Your task to perform on an android device: View the shopping cart on amazon. Image 0: 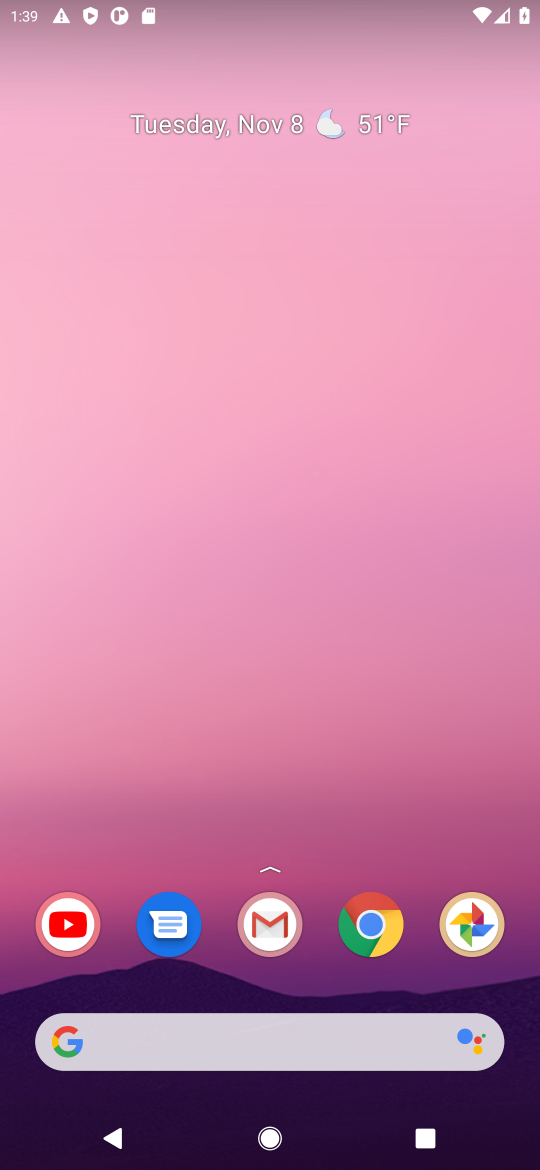
Step 0: click (388, 916)
Your task to perform on an android device: View the shopping cart on amazon. Image 1: 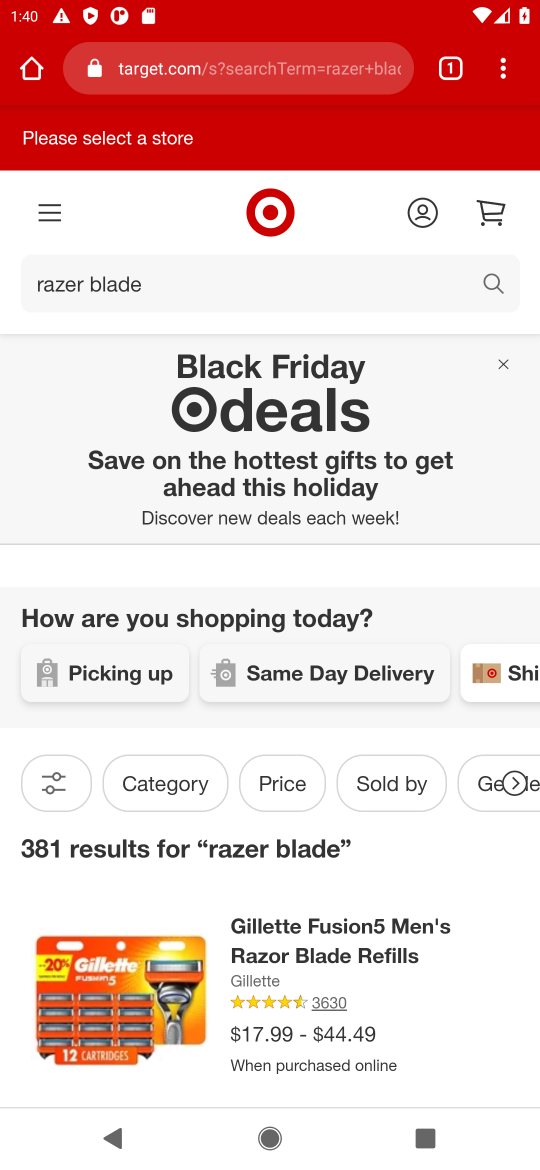
Step 1: click (186, 75)
Your task to perform on an android device: View the shopping cart on amazon. Image 2: 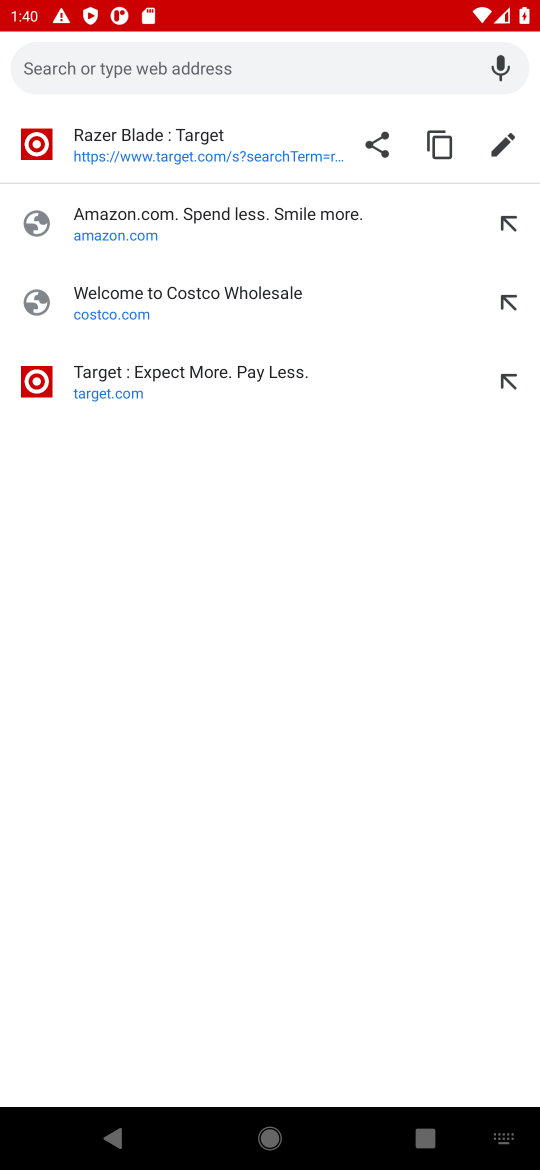
Step 2: type "amazion"
Your task to perform on an android device: View the shopping cart on amazon. Image 3: 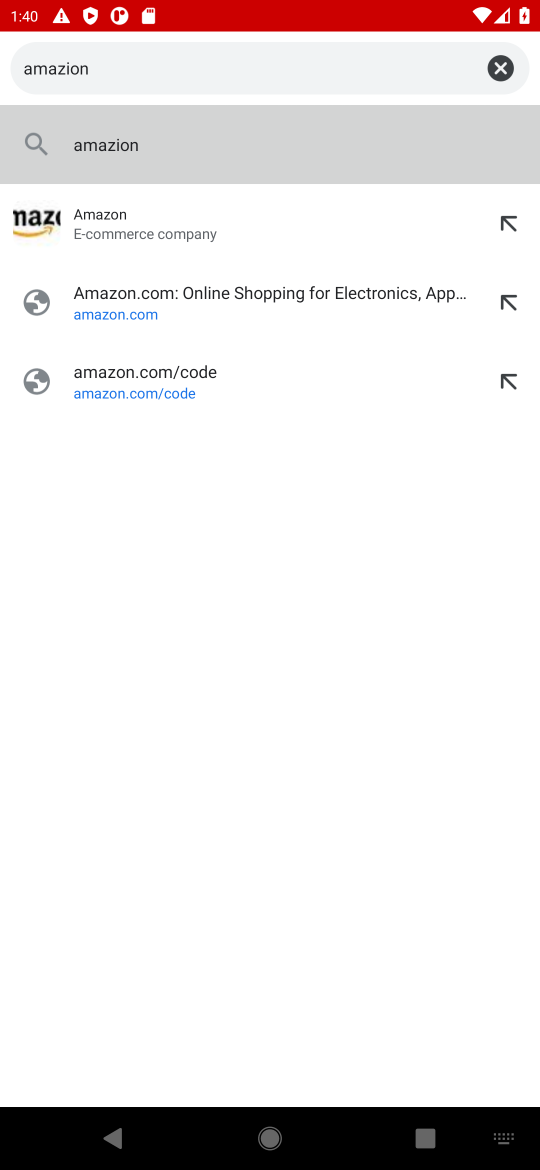
Step 3: click (127, 233)
Your task to perform on an android device: View the shopping cart on amazon. Image 4: 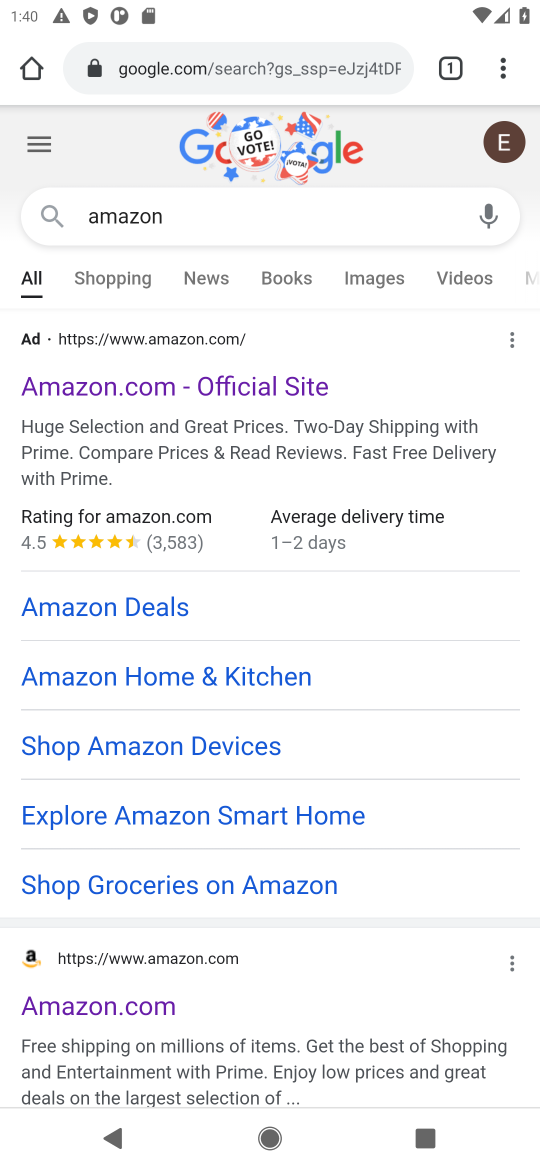
Step 4: click (52, 396)
Your task to perform on an android device: View the shopping cart on amazon. Image 5: 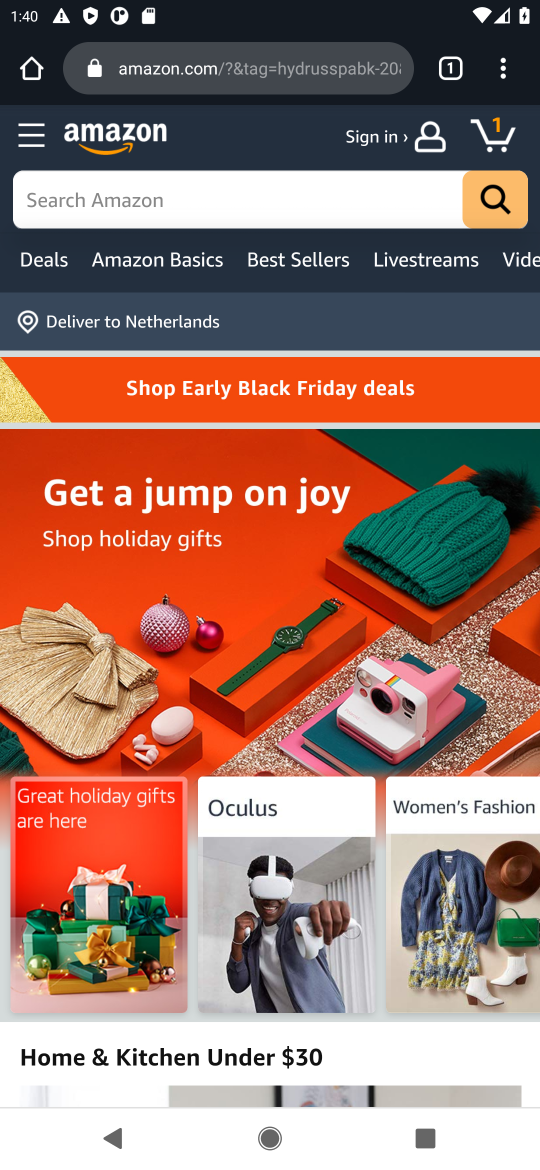
Step 5: click (489, 148)
Your task to perform on an android device: View the shopping cart on amazon. Image 6: 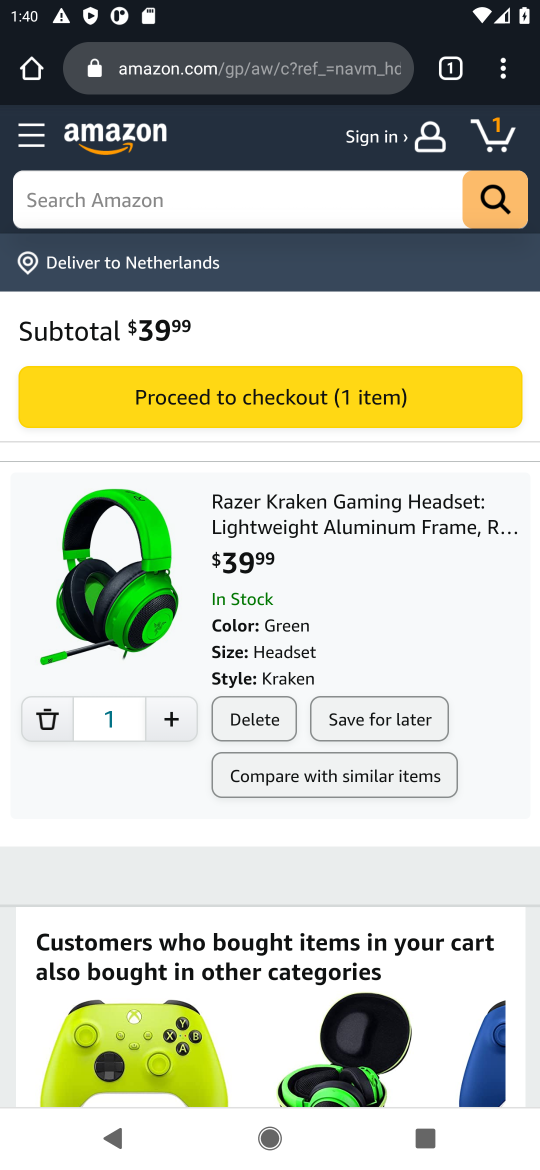
Step 6: task complete